Your task to perform on an android device: Search for hotels in San Diego Image 0: 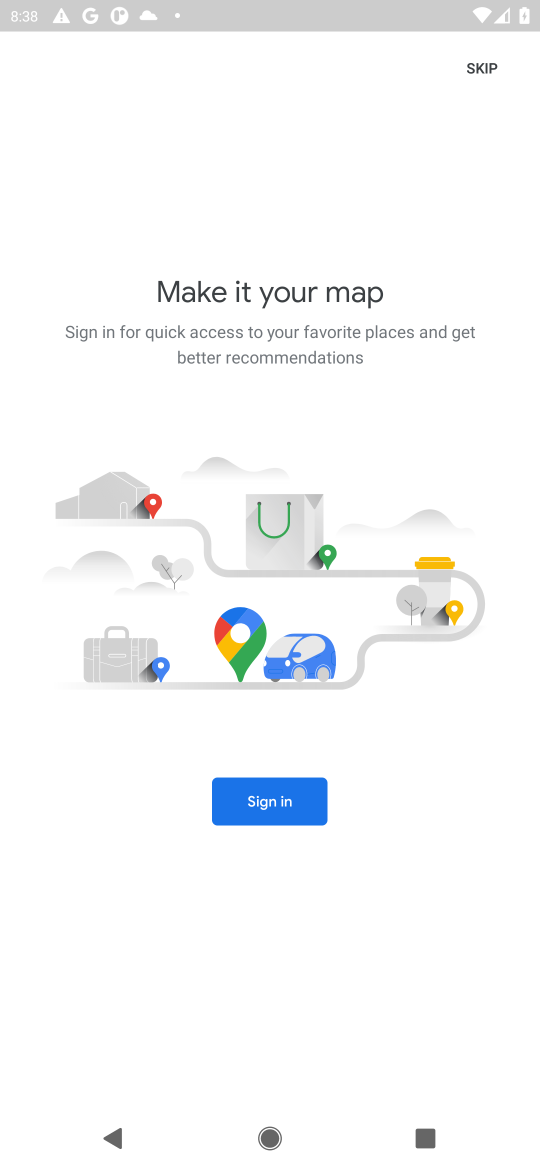
Step 0: press home button
Your task to perform on an android device: Search for hotels in San Diego Image 1: 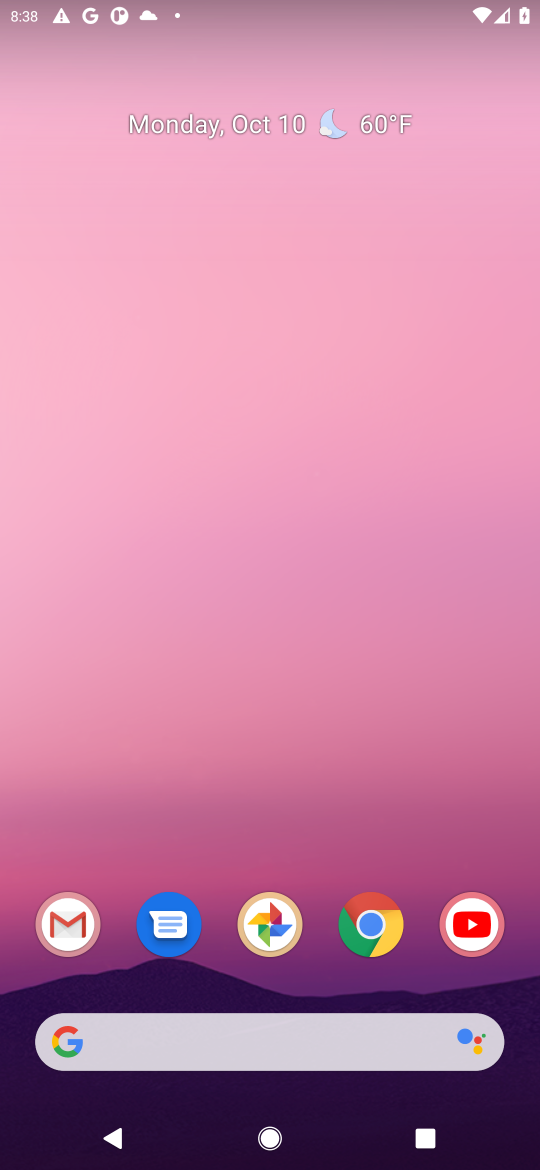
Step 1: drag from (232, 1076) to (351, 71)
Your task to perform on an android device: Search for hotels in San Diego Image 2: 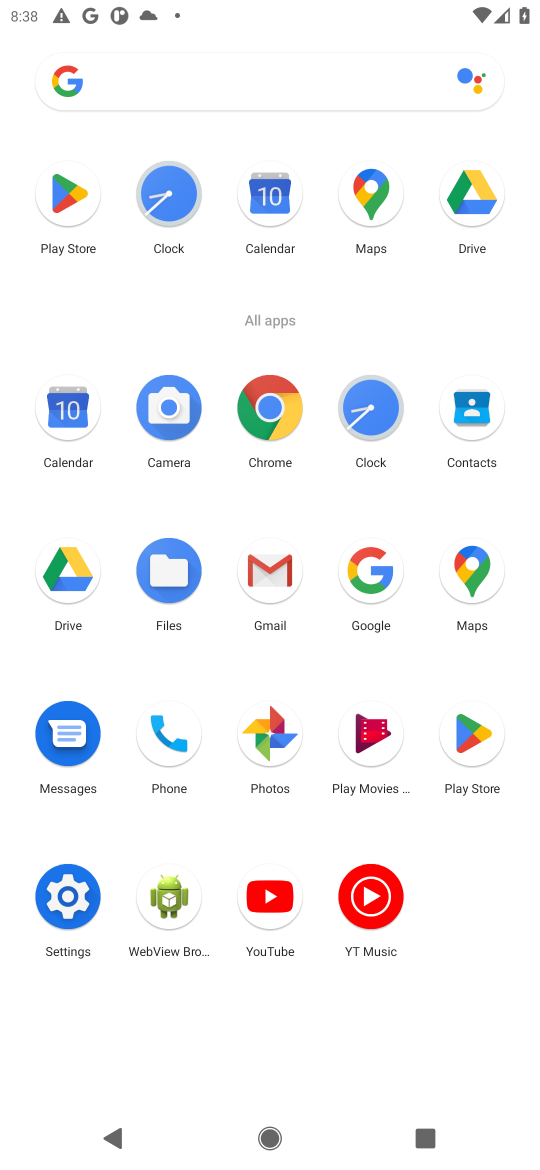
Step 2: click (354, 616)
Your task to perform on an android device: Search for hotels in San Diego Image 3: 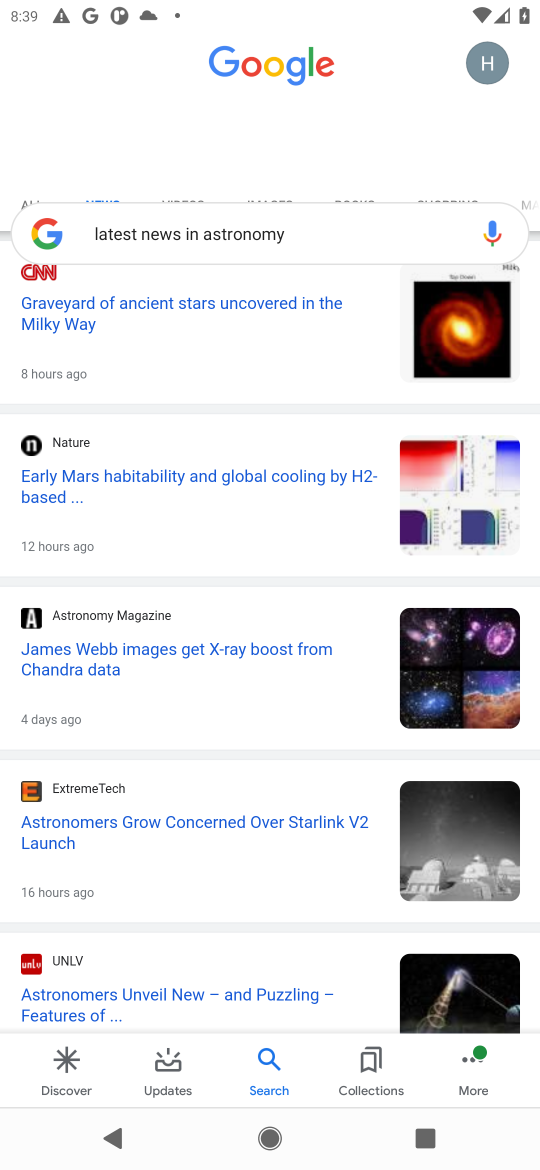
Step 3: click (369, 237)
Your task to perform on an android device: Search for hotels in San Diego Image 4: 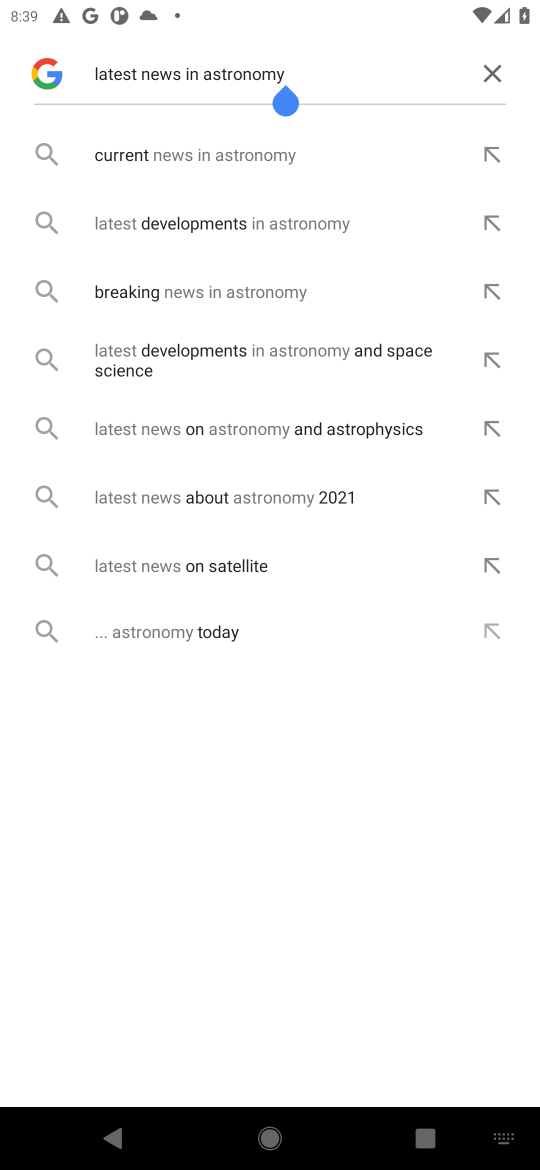
Step 4: click (498, 69)
Your task to perform on an android device: Search for hotels in San Diego Image 5: 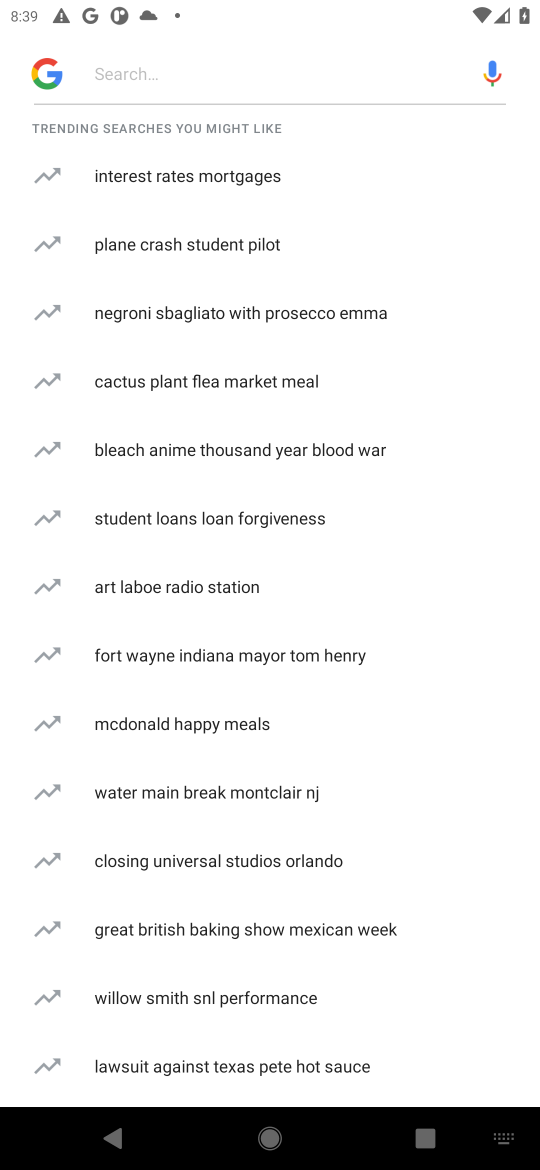
Step 5: type "hotels in San Diego"
Your task to perform on an android device: Search for hotels in San Diego Image 6: 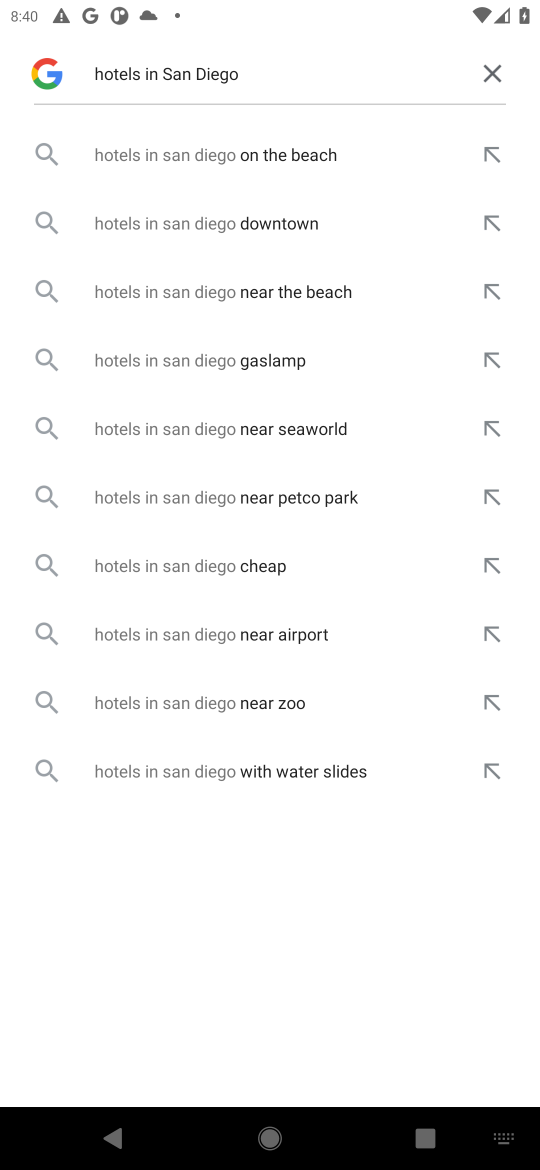
Step 6: click (301, 168)
Your task to perform on an android device: Search for hotels in San Diego Image 7: 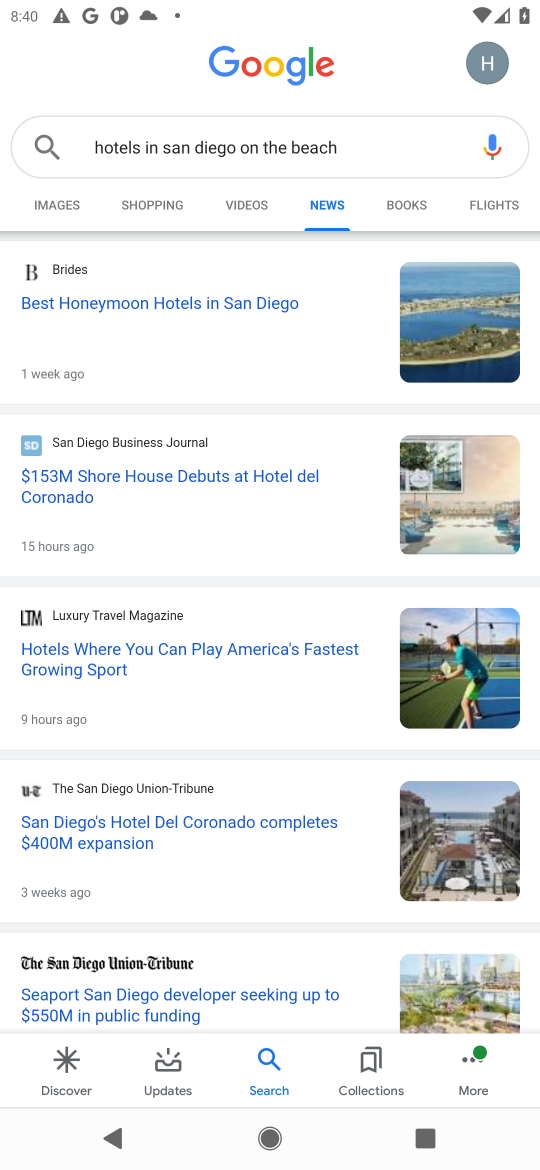
Step 7: drag from (88, 205) to (364, 202)
Your task to perform on an android device: Search for hotels in San Diego Image 8: 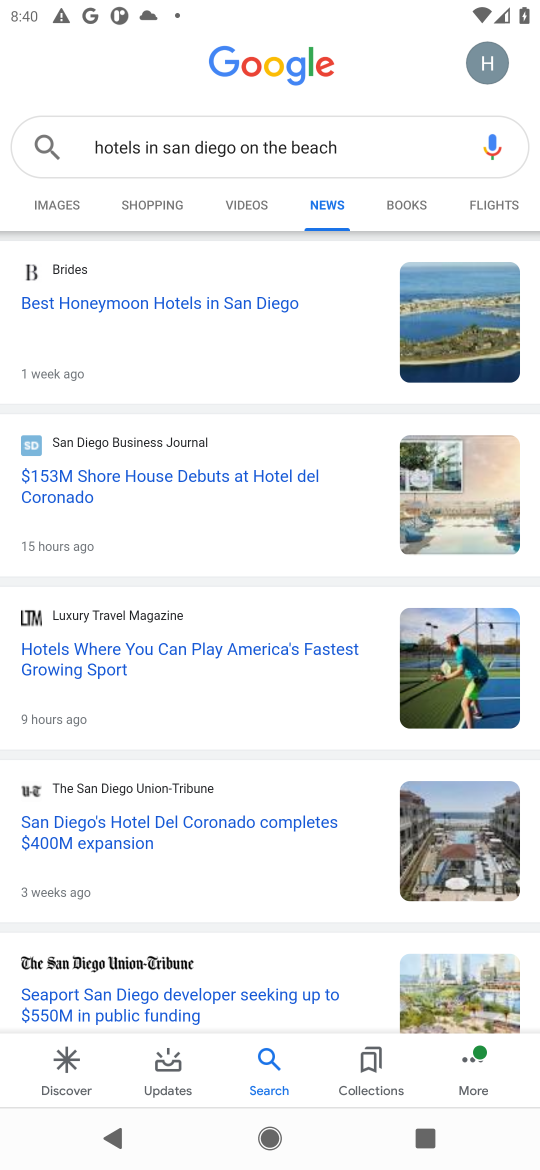
Step 8: drag from (98, 208) to (394, 184)
Your task to perform on an android device: Search for hotels in San Diego Image 9: 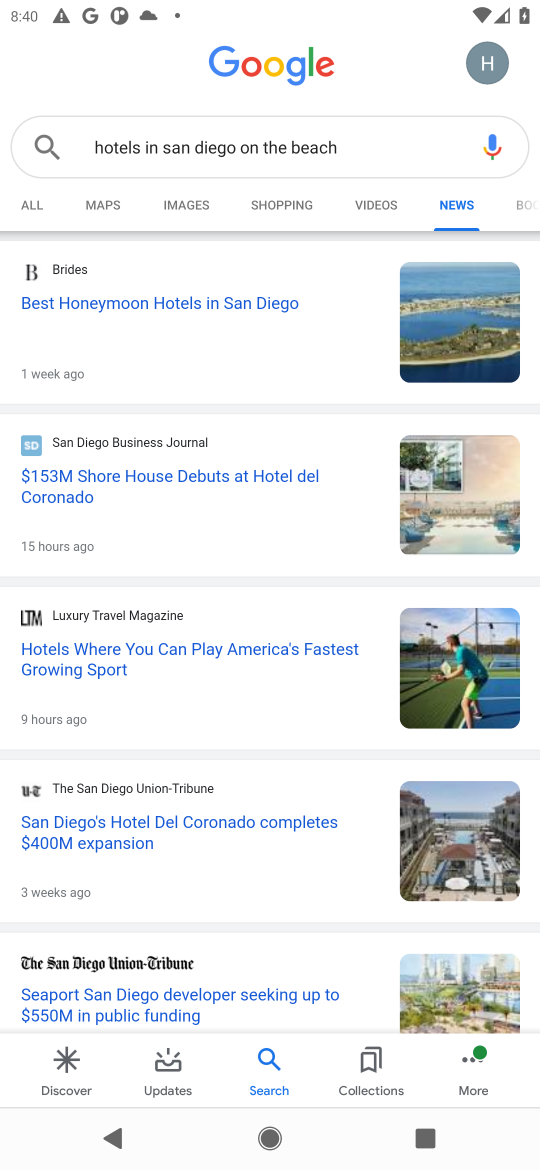
Step 9: click (37, 204)
Your task to perform on an android device: Search for hotels in San Diego Image 10: 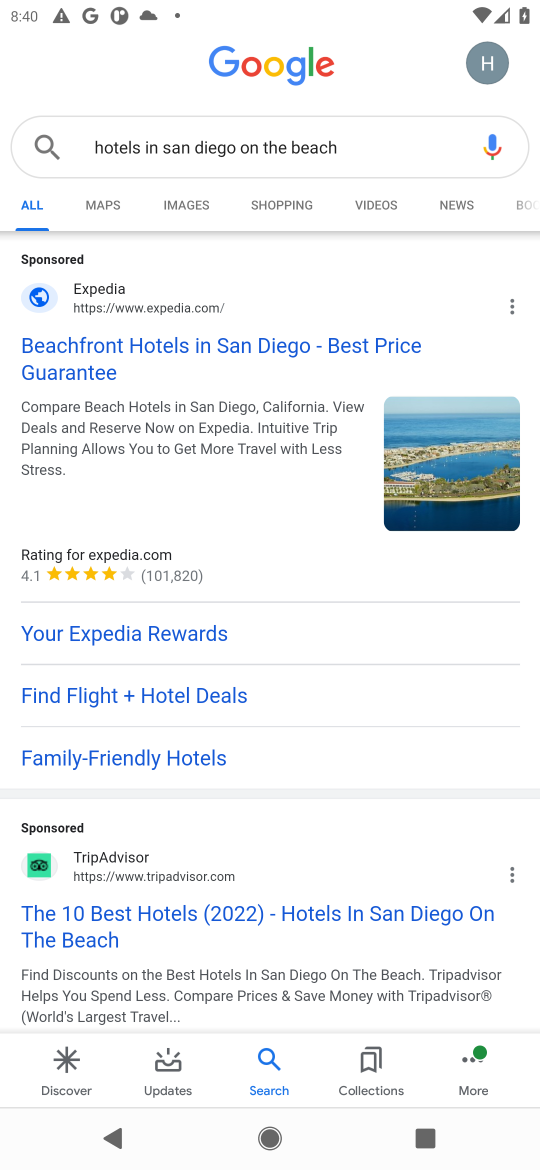
Step 10: task complete